Your task to perform on an android device: check google app version Image 0: 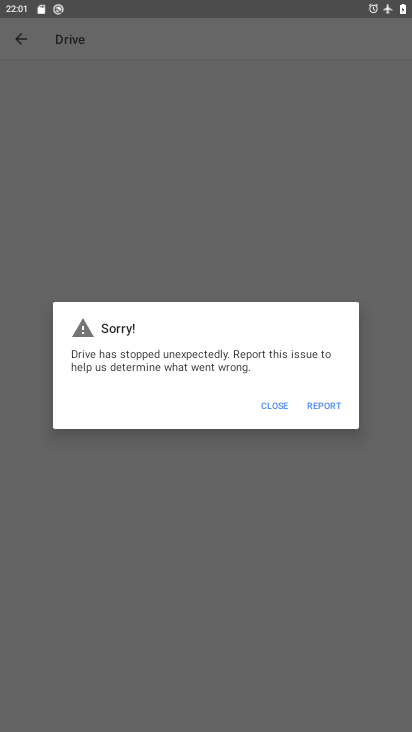
Step 0: press home button
Your task to perform on an android device: check google app version Image 1: 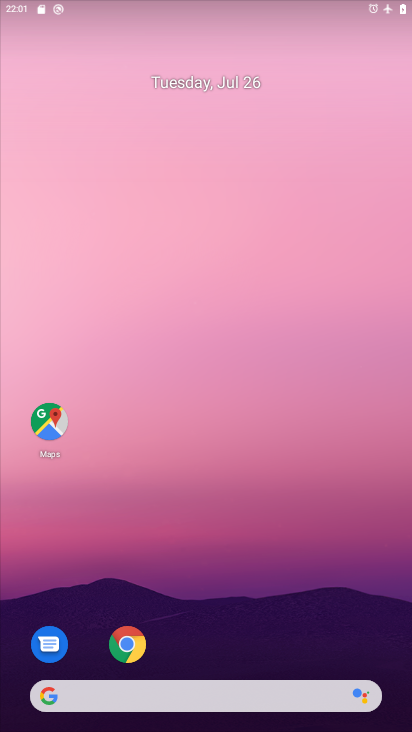
Step 1: drag from (226, 681) to (242, 264)
Your task to perform on an android device: check google app version Image 2: 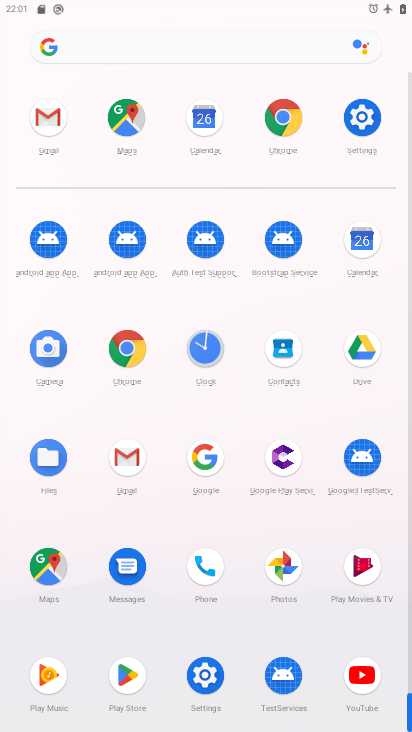
Step 2: click (200, 458)
Your task to perform on an android device: check google app version Image 3: 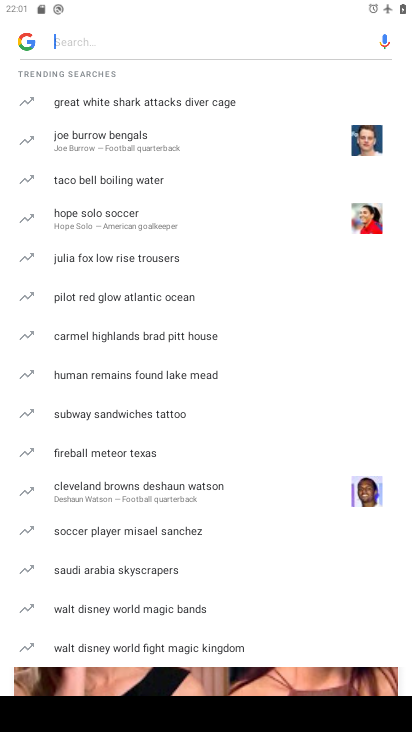
Step 3: click (27, 33)
Your task to perform on an android device: check google app version Image 4: 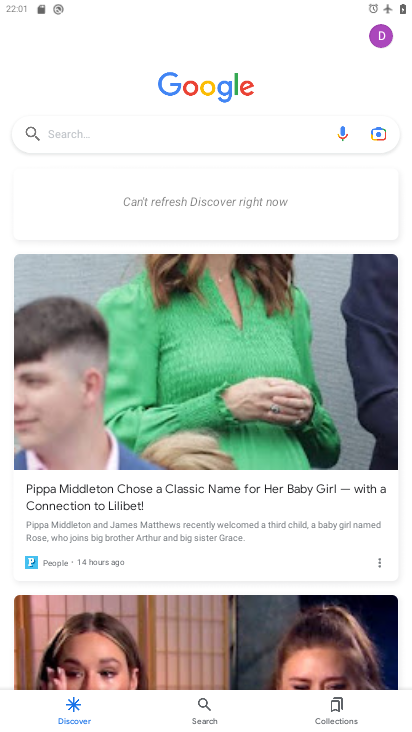
Step 4: click (384, 36)
Your task to perform on an android device: check google app version Image 5: 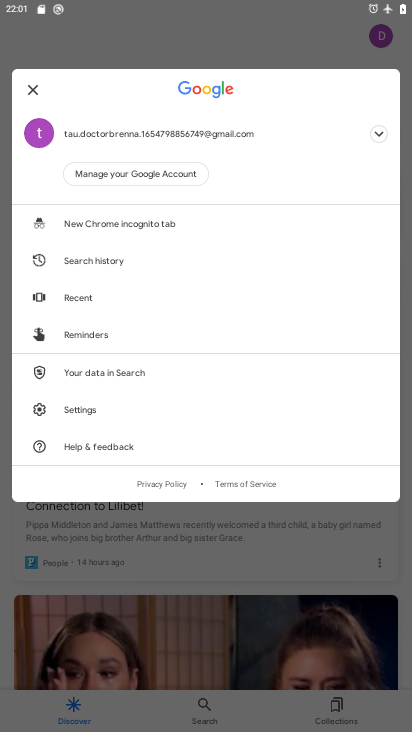
Step 5: click (78, 405)
Your task to perform on an android device: check google app version Image 6: 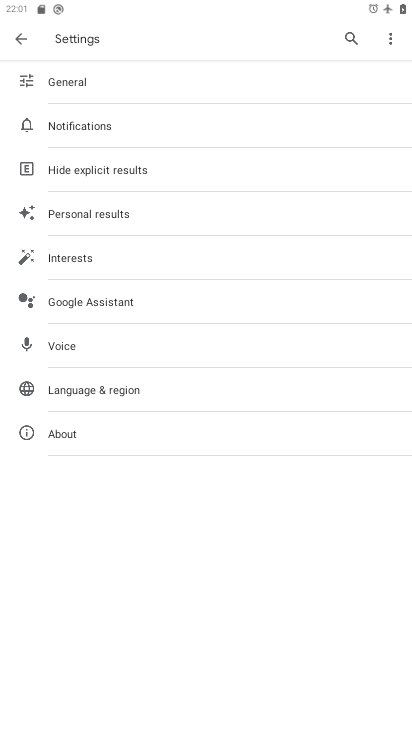
Step 6: click (78, 428)
Your task to perform on an android device: check google app version Image 7: 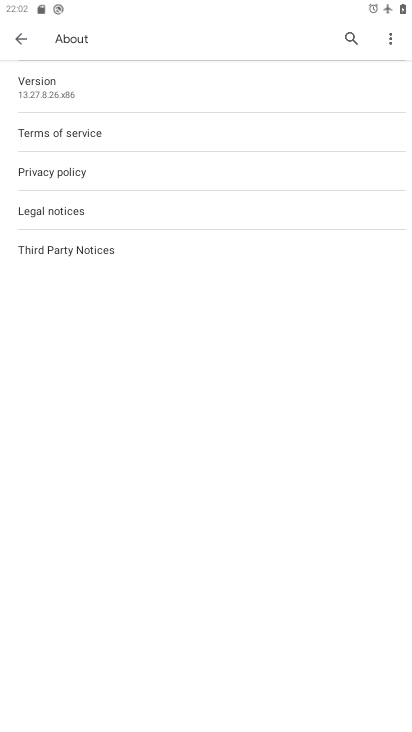
Step 7: task complete